Your task to perform on an android device: When is my next appointment? Image 0: 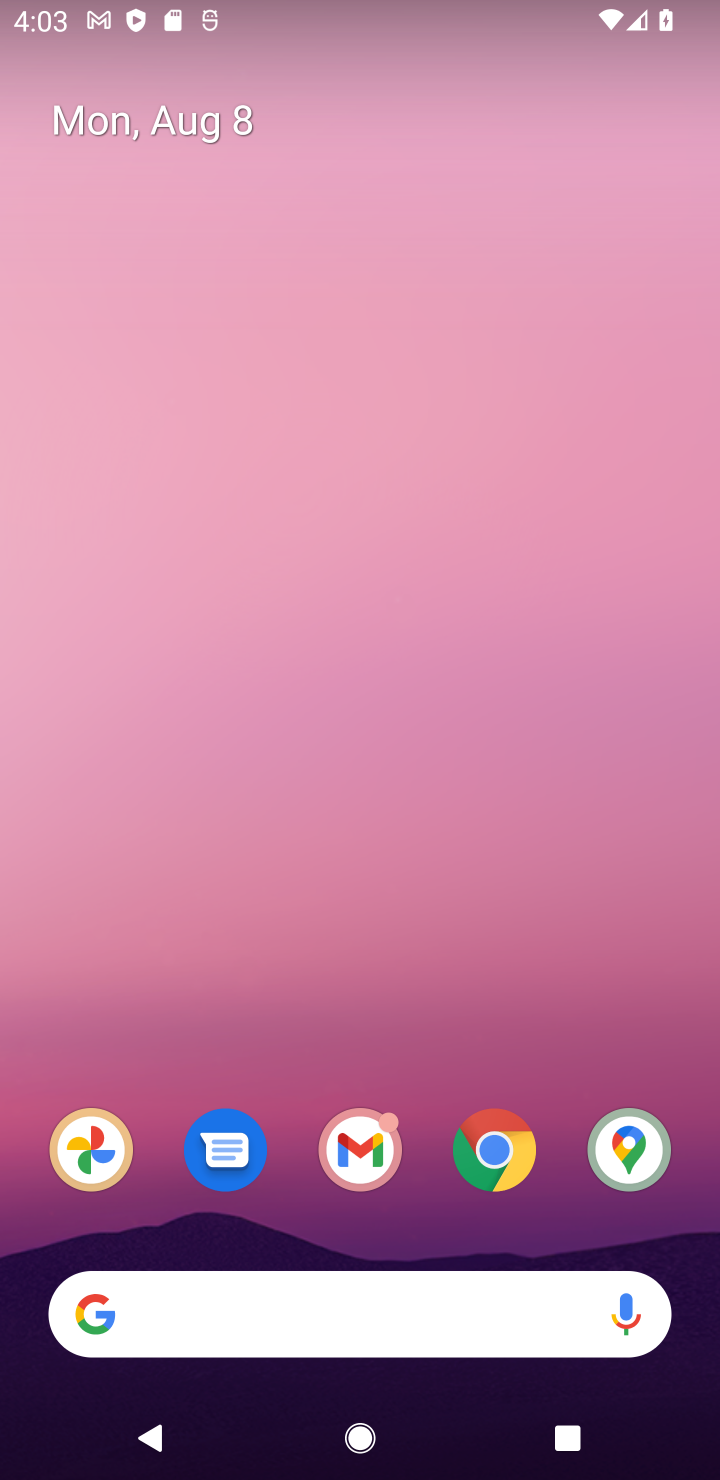
Step 0: drag from (433, 1207) to (393, 172)
Your task to perform on an android device: When is my next appointment? Image 1: 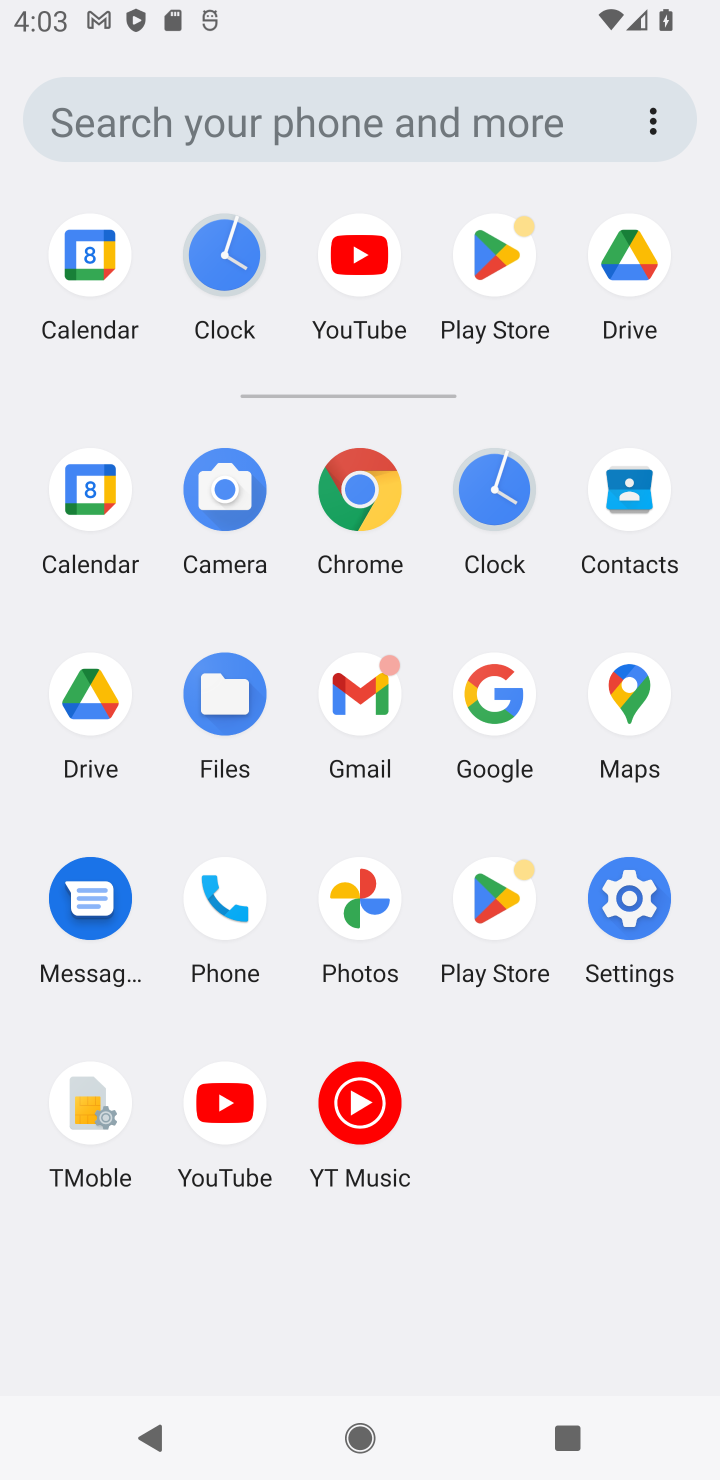
Step 1: click (116, 266)
Your task to perform on an android device: When is my next appointment? Image 2: 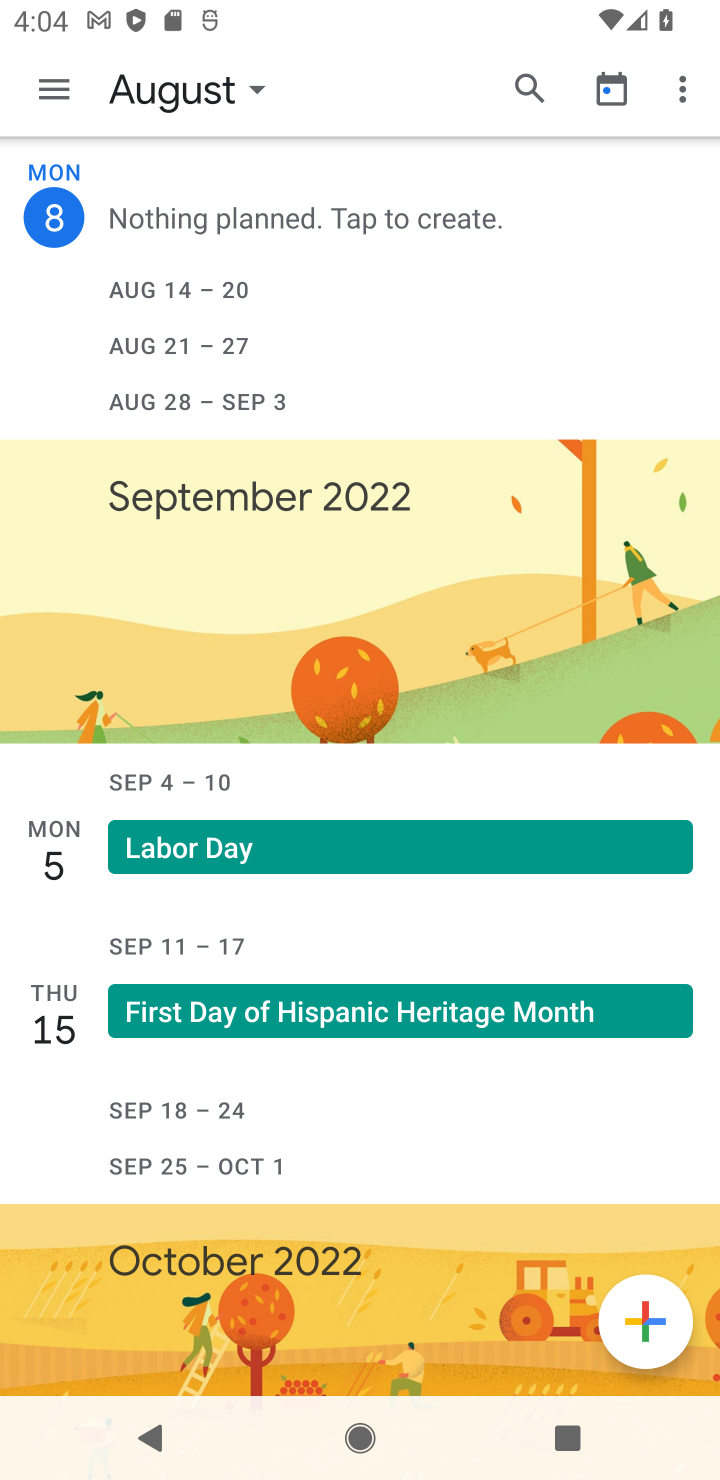
Step 2: task complete